Your task to perform on an android device: Open maps Image 0: 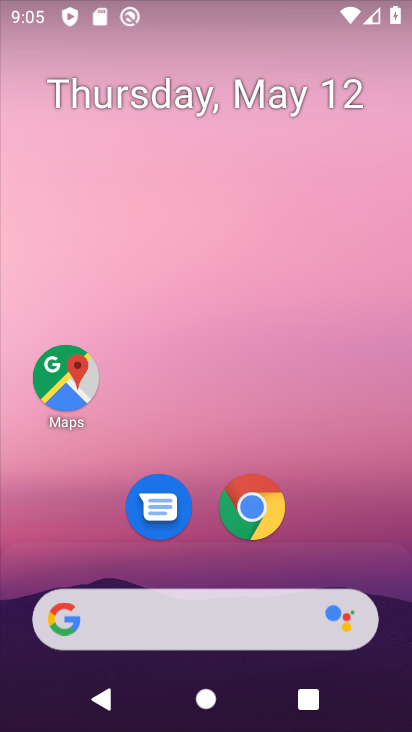
Step 0: click (77, 396)
Your task to perform on an android device: Open maps Image 1: 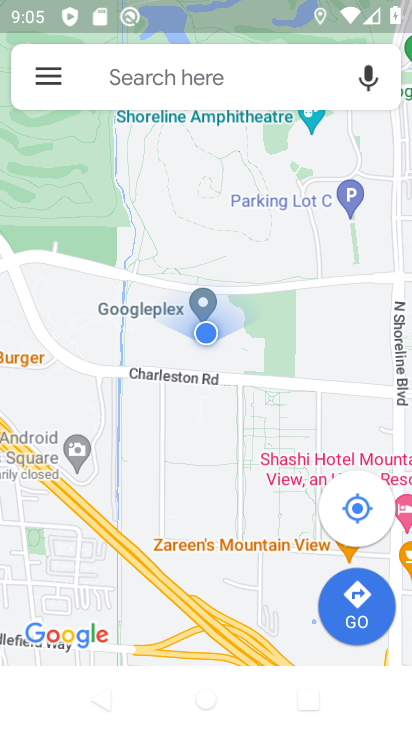
Step 1: task complete